Your task to perform on an android device: add a contact in the contacts app Image 0: 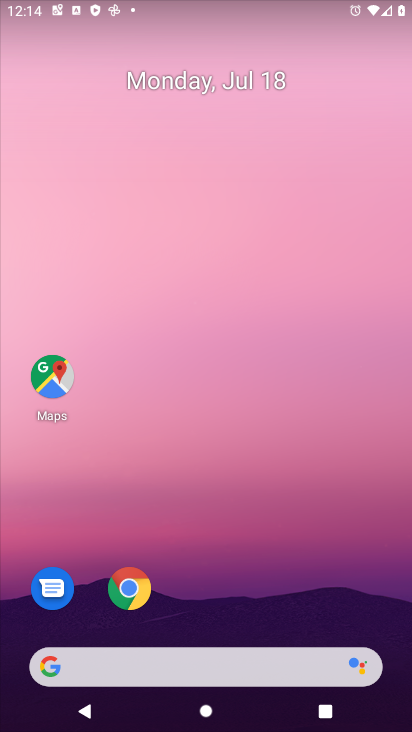
Step 0: drag from (210, 614) to (222, 263)
Your task to perform on an android device: add a contact in the contacts app Image 1: 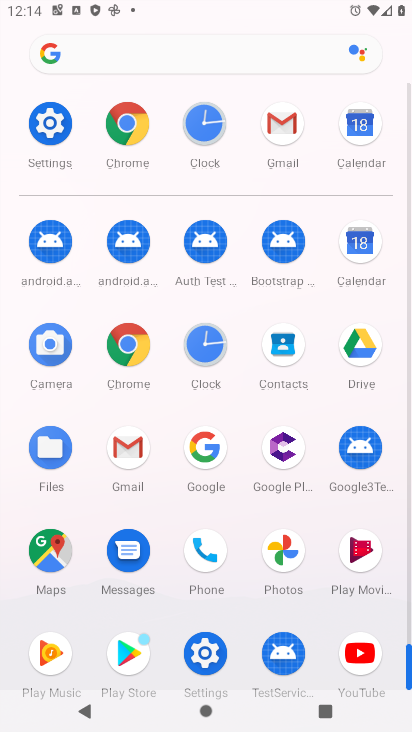
Step 1: click (274, 373)
Your task to perform on an android device: add a contact in the contacts app Image 2: 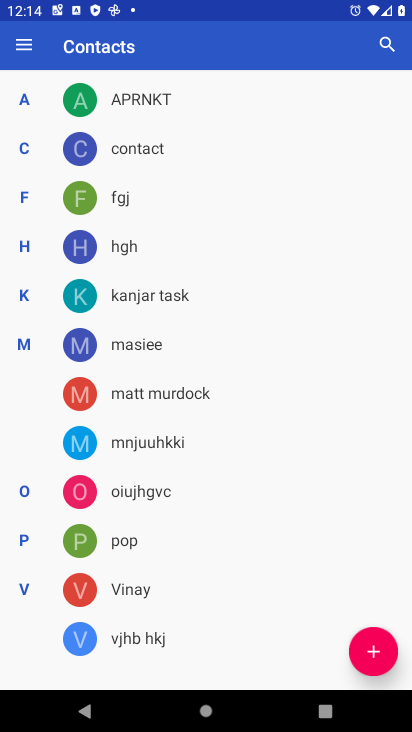
Step 2: click (374, 656)
Your task to perform on an android device: add a contact in the contacts app Image 3: 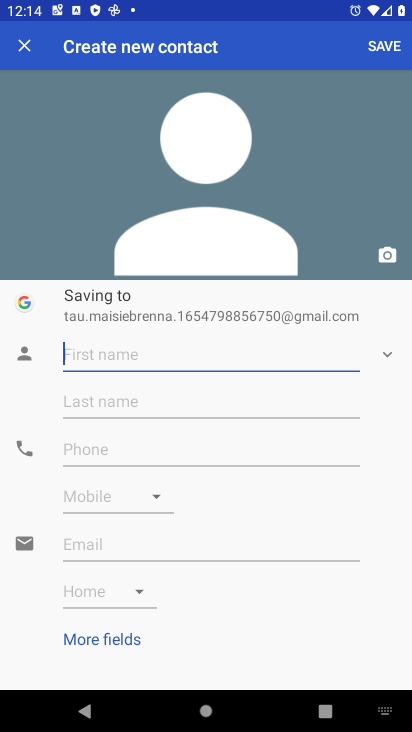
Step 3: type "jghfgdfhsgzdc"
Your task to perform on an android device: add a contact in the contacts app Image 4: 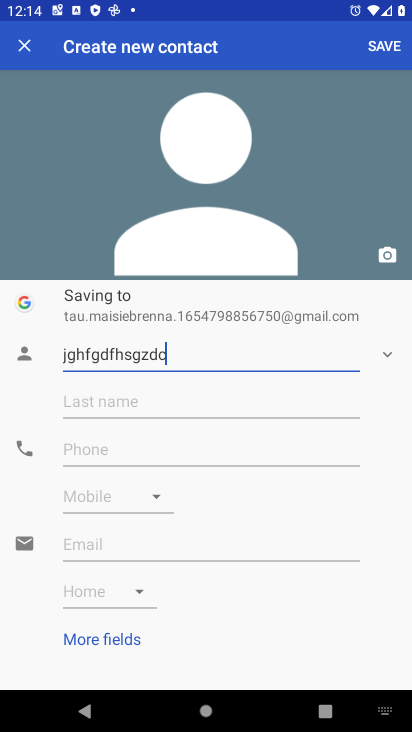
Step 4: click (171, 448)
Your task to perform on an android device: add a contact in the contacts app Image 5: 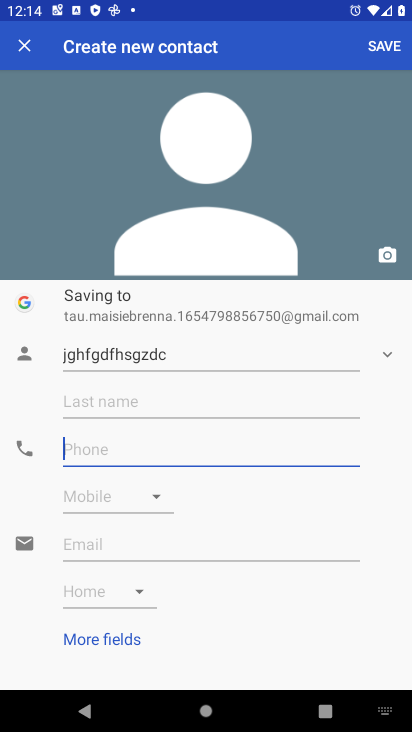
Step 5: type "98765467"
Your task to perform on an android device: add a contact in the contacts app Image 6: 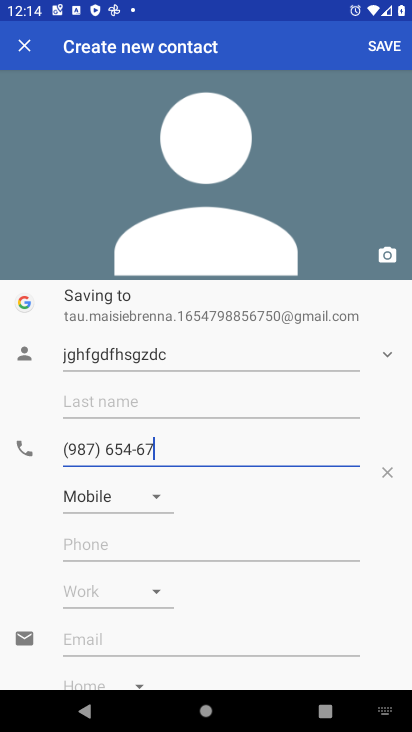
Step 6: click (385, 47)
Your task to perform on an android device: add a contact in the contacts app Image 7: 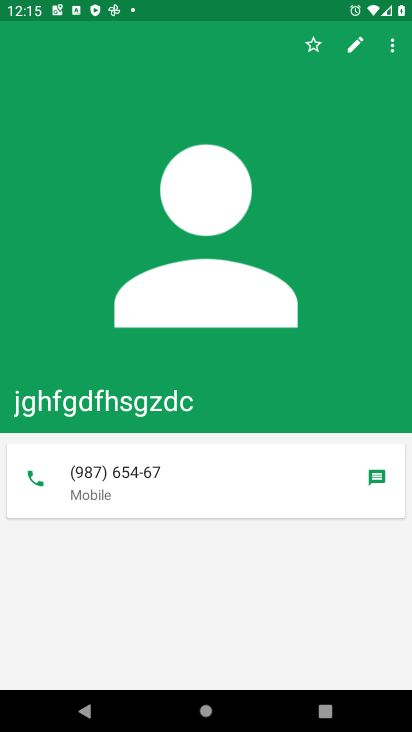
Step 7: task complete